Your task to perform on an android device: turn notification dots off Image 0: 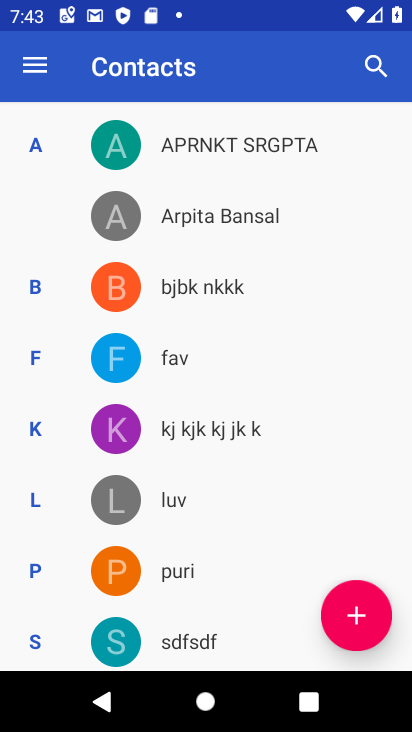
Step 0: press home button
Your task to perform on an android device: turn notification dots off Image 1: 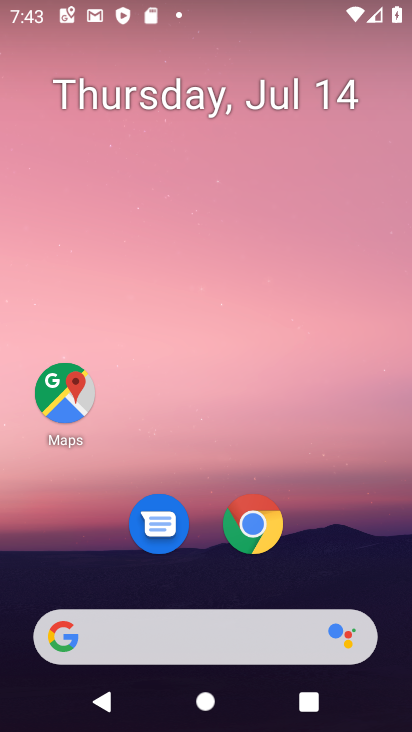
Step 1: drag from (324, 565) to (300, 70)
Your task to perform on an android device: turn notification dots off Image 2: 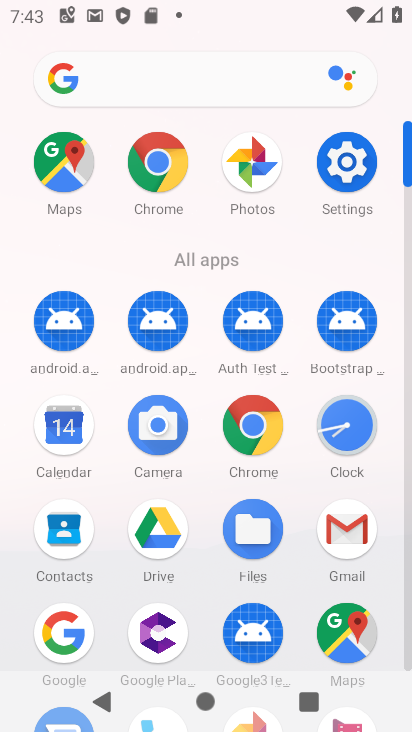
Step 2: click (331, 166)
Your task to perform on an android device: turn notification dots off Image 3: 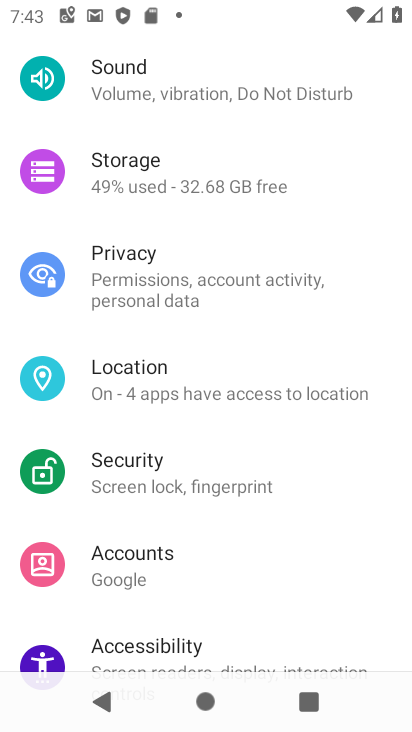
Step 3: drag from (253, 177) to (245, 614)
Your task to perform on an android device: turn notification dots off Image 4: 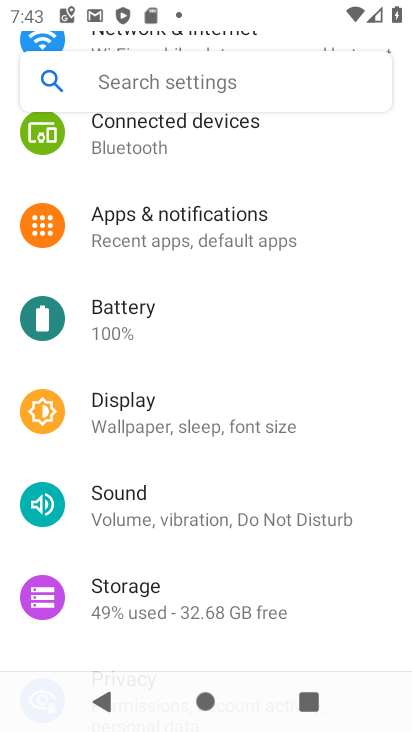
Step 4: click (251, 217)
Your task to perform on an android device: turn notification dots off Image 5: 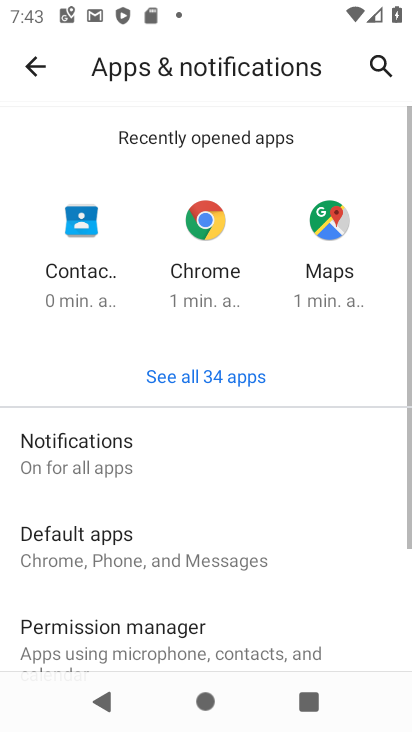
Step 5: click (86, 473)
Your task to perform on an android device: turn notification dots off Image 6: 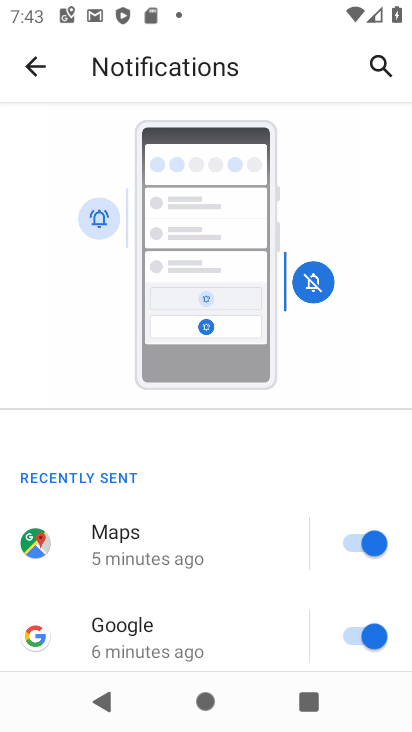
Step 6: drag from (226, 612) to (235, 287)
Your task to perform on an android device: turn notification dots off Image 7: 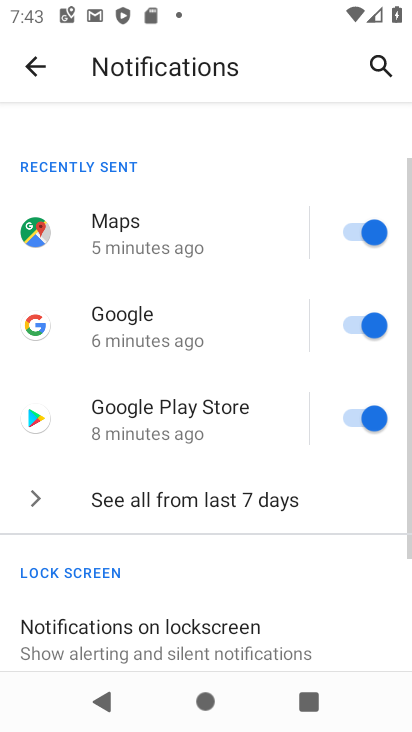
Step 7: drag from (184, 525) to (186, 180)
Your task to perform on an android device: turn notification dots off Image 8: 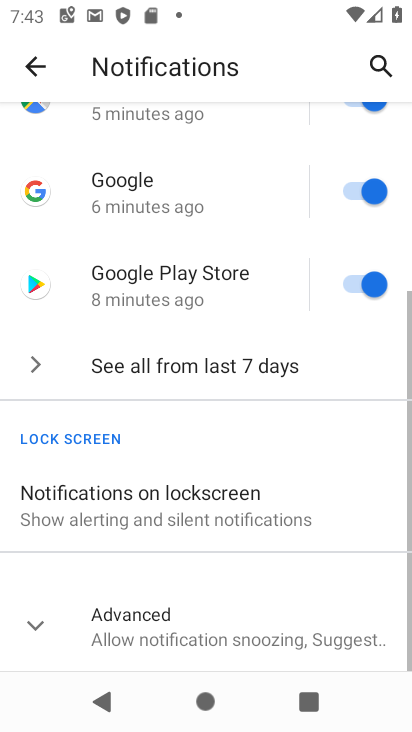
Step 8: click (34, 616)
Your task to perform on an android device: turn notification dots off Image 9: 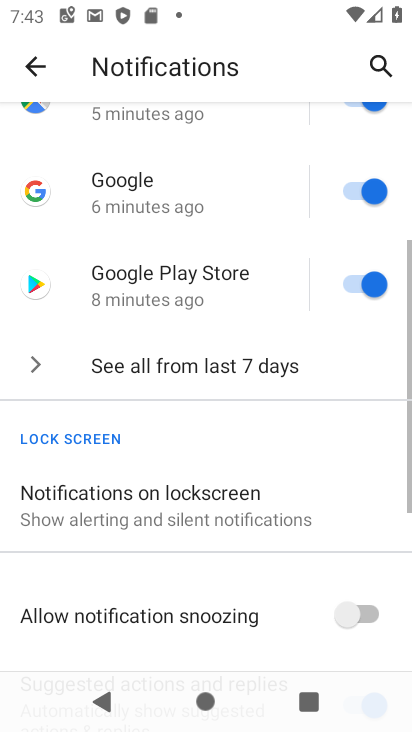
Step 9: task complete